Your task to perform on an android device: Turn off the flashlight Image 0: 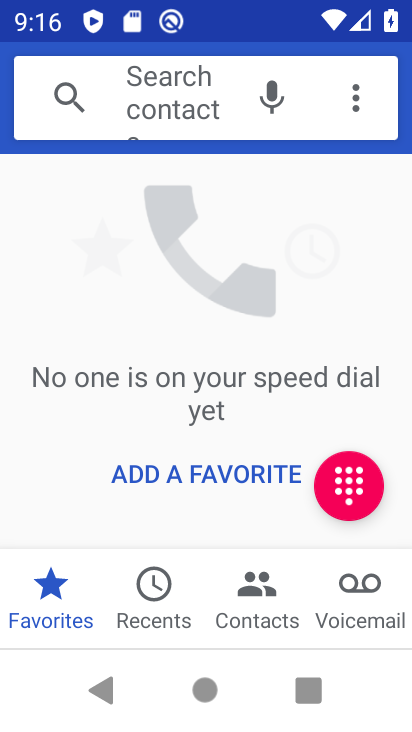
Step 0: press home button
Your task to perform on an android device: Turn off the flashlight Image 1: 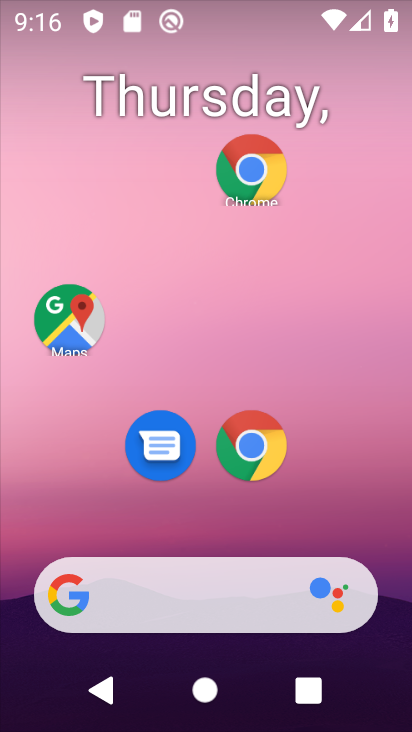
Step 1: drag from (210, 587) to (217, 431)
Your task to perform on an android device: Turn off the flashlight Image 2: 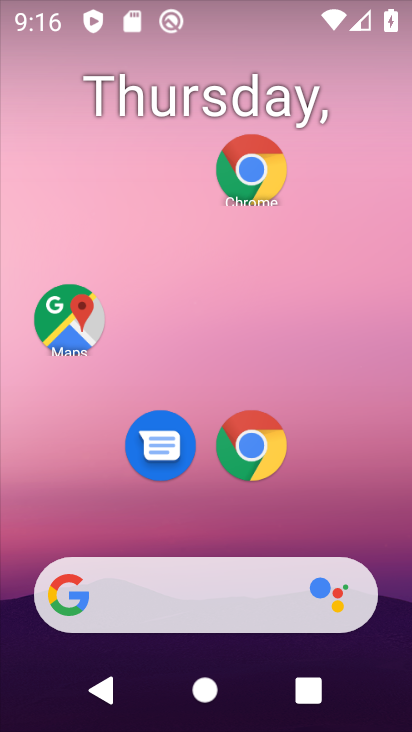
Step 2: drag from (194, 528) to (202, 5)
Your task to perform on an android device: Turn off the flashlight Image 3: 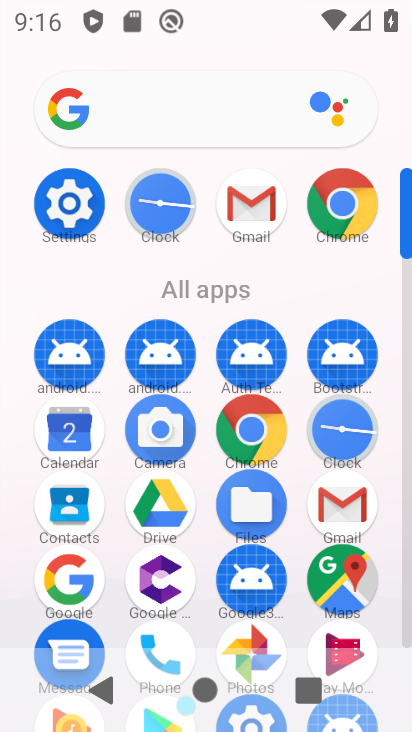
Step 3: click (74, 200)
Your task to perform on an android device: Turn off the flashlight Image 4: 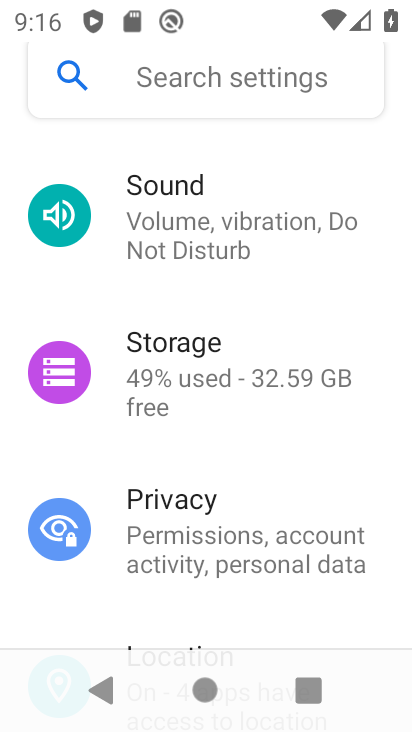
Step 4: task complete